Your task to perform on an android device: Go to Google maps Image 0: 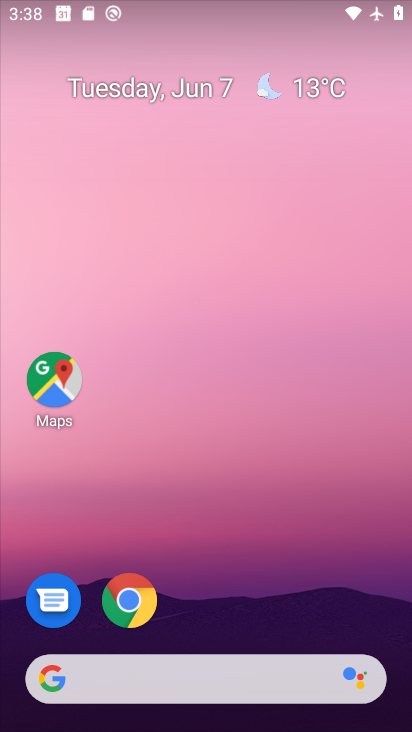
Step 0: drag from (323, 538) to (211, 89)
Your task to perform on an android device: Go to Google maps Image 1: 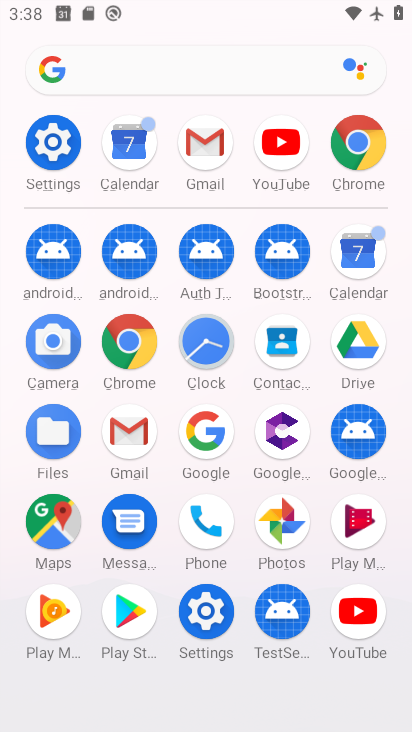
Step 1: click (63, 529)
Your task to perform on an android device: Go to Google maps Image 2: 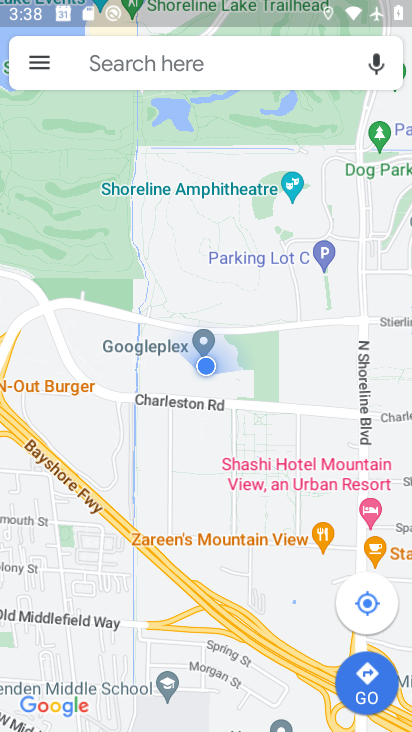
Step 2: task complete